Your task to perform on an android device: turn off javascript in the chrome app Image 0: 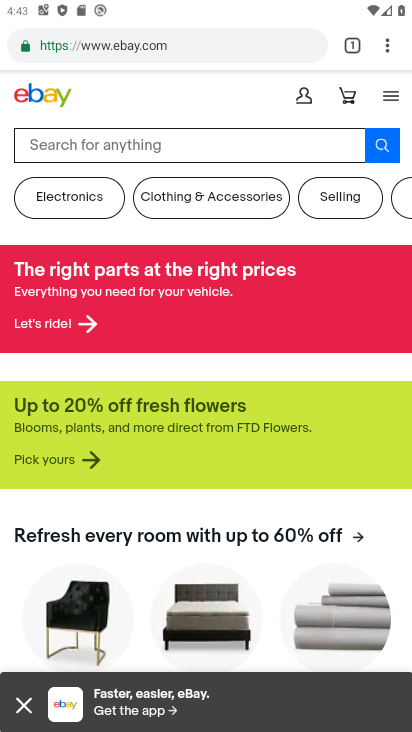
Step 0: drag from (386, 37) to (228, 542)
Your task to perform on an android device: turn off javascript in the chrome app Image 1: 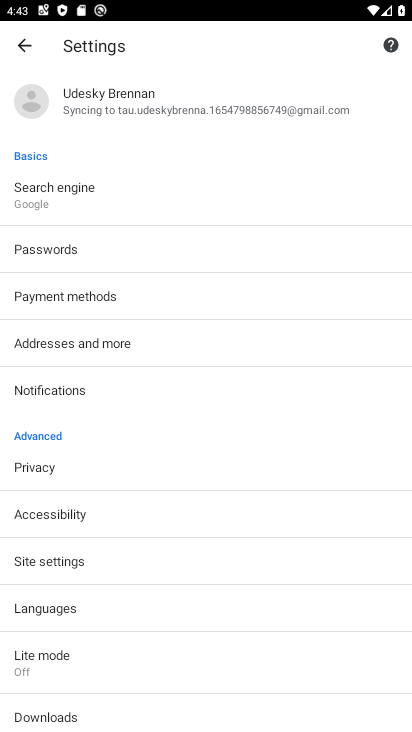
Step 1: click (89, 555)
Your task to perform on an android device: turn off javascript in the chrome app Image 2: 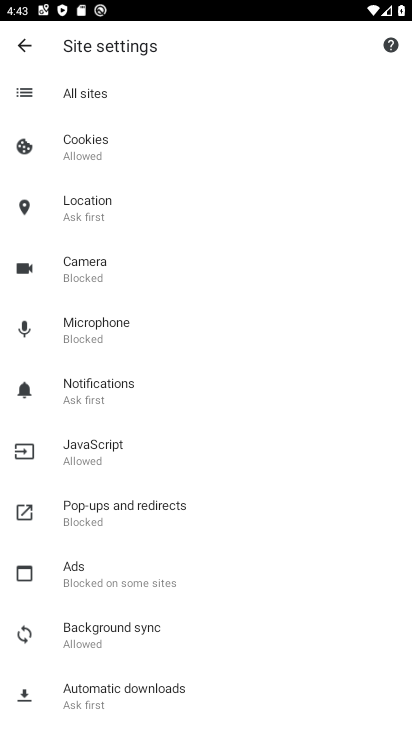
Step 2: click (84, 450)
Your task to perform on an android device: turn off javascript in the chrome app Image 3: 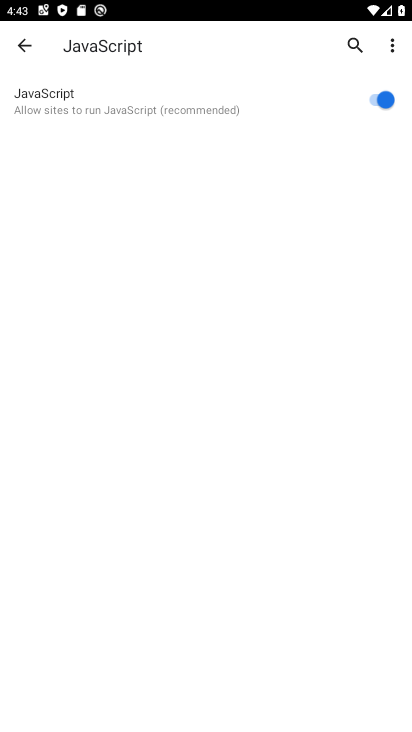
Step 3: click (374, 97)
Your task to perform on an android device: turn off javascript in the chrome app Image 4: 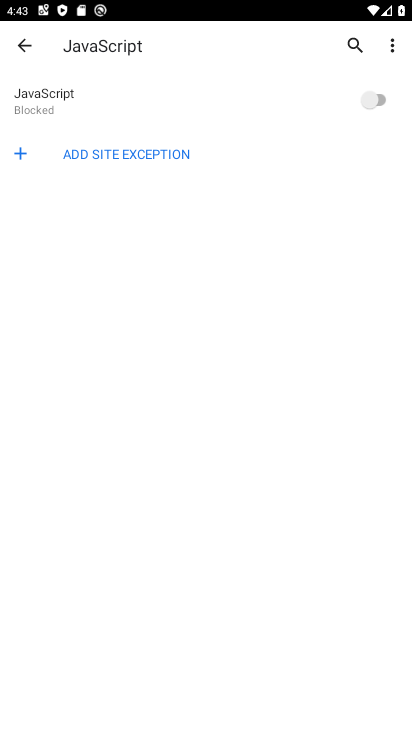
Step 4: task complete